Your task to perform on an android device: Open Maps and search for coffee Image 0: 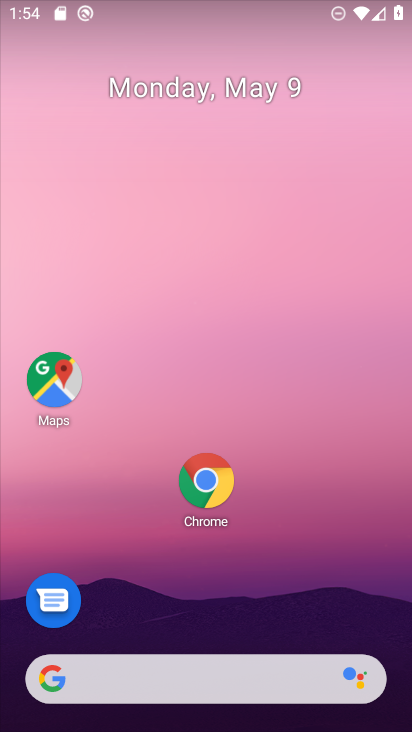
Step 0: drag from (154, 662) to (301, 153)
Your task to perform on an android device: Open Maps and search for coffee Image 1: 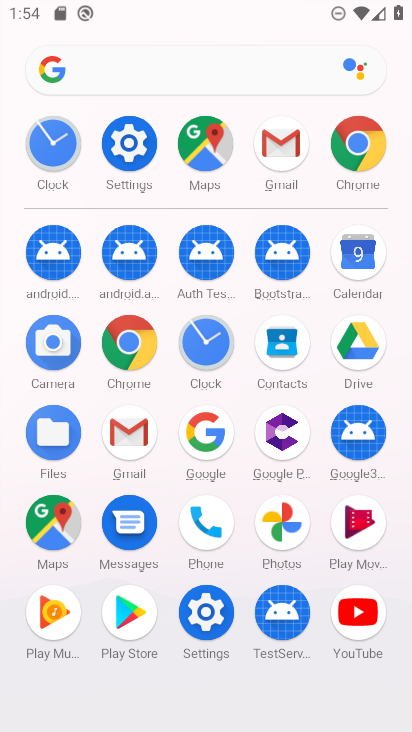
Step 1: click (198, 154)
Your task to perform on an android device: Open Maps and search for coffee Image 2: 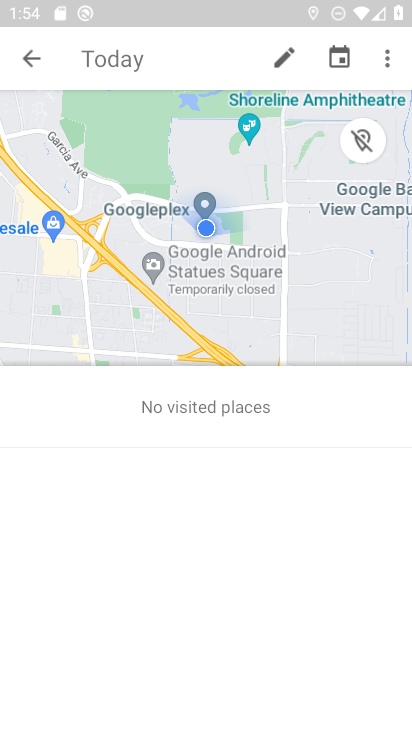
Step 2: click (29, 57)
Your task to perform on an android device: Open Maps and search for coffee Image 3: 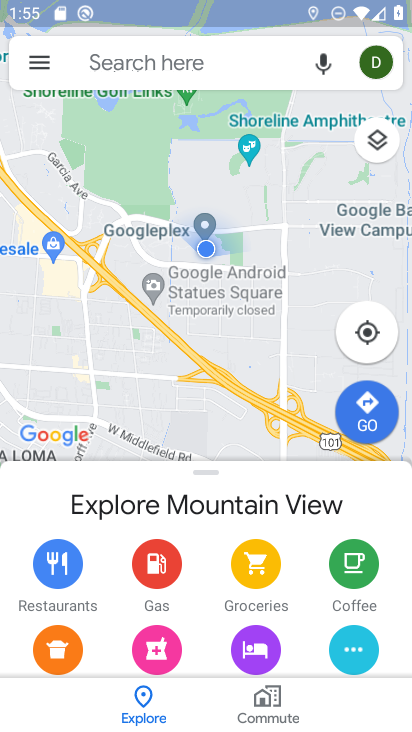
Step 3: click (173, 52)
Your task to perform on an android device: Open Maps and search for coffee Image 4: 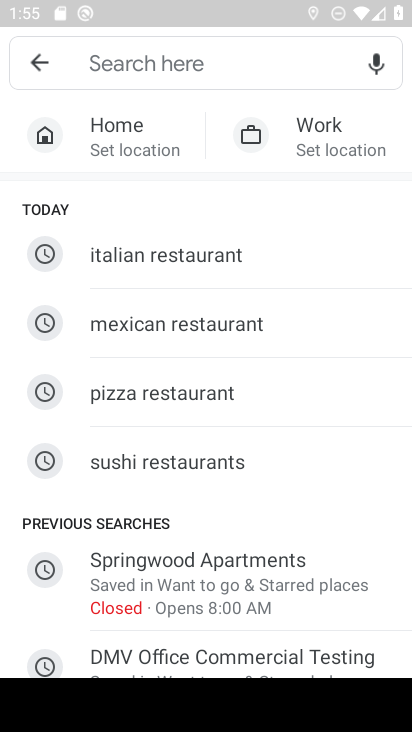
Step 4: drag from (147, 534) to (291, 262)
Your task to perform on an android device: Open Maps and search for coffee Image 5: 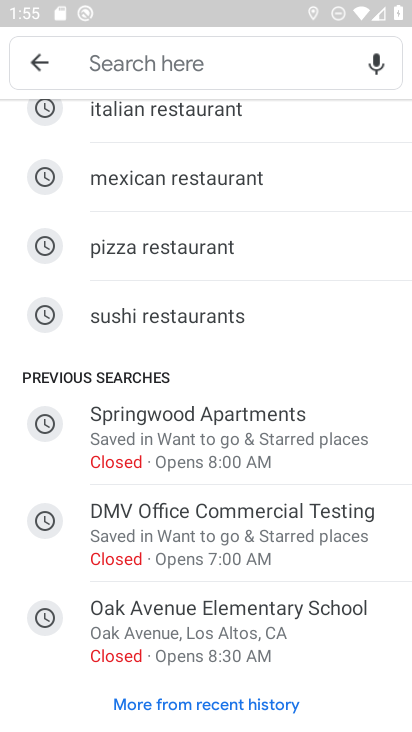
Step 5: click (246, 63)
Your task to perform on an android device: Open Maps and search for coffee Image 6: 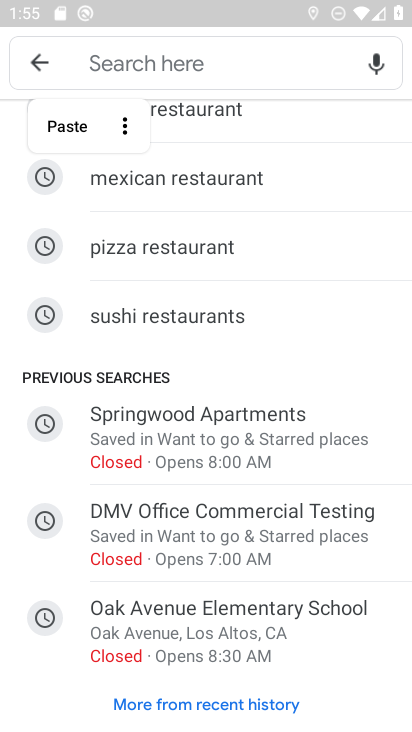
Step 6: type "coffee"
Your task to perform on an android device: Open Maps and search for coffee Image 7: 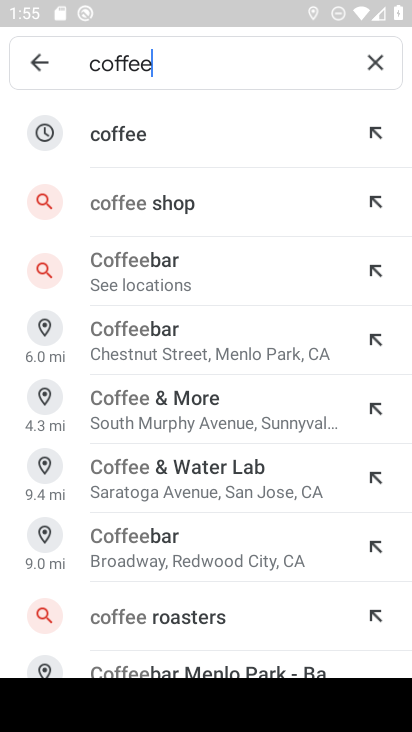
Step 7: click (167, 143)
Your task to perform on an android device: Open Maps and search for coffee Image 8: 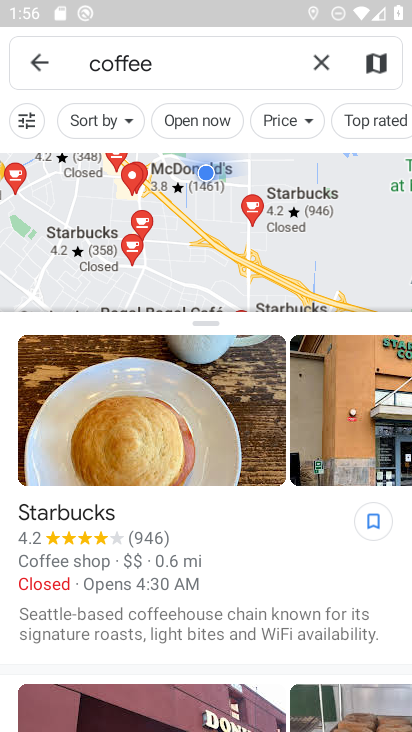
Step 8: task complete